Your task to perform on an android device: make emails show in primary in the gmail app Image 0: 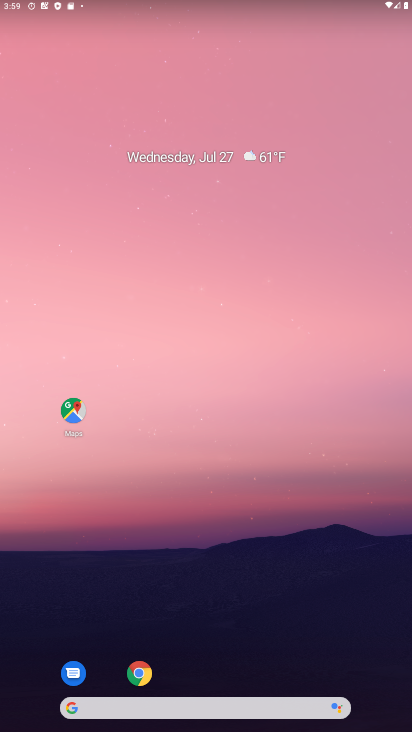
Step 0: drag from (39, 700) to (183, 119)
Your task to perform on an android device: make emails show in primary in the gmail app Image 1: 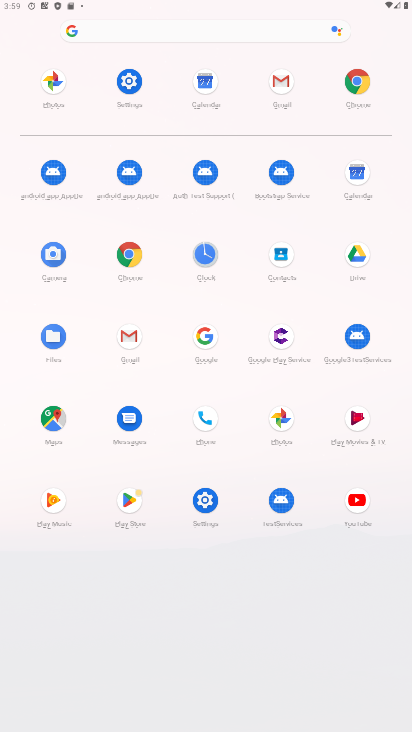
Step 1: click (125, 328)
Your task to perform on an android device: make emails show in primary in the gmail app Image 2: 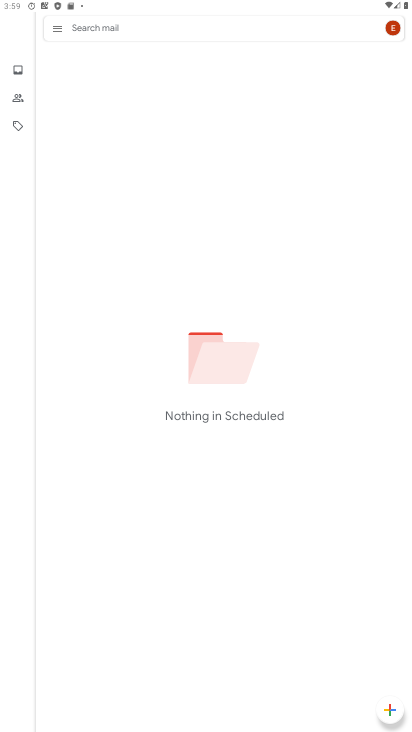
Step 2: click (60, 33)
Your task to perform on an android device: make emails show in primary in the gmail app Image 3: 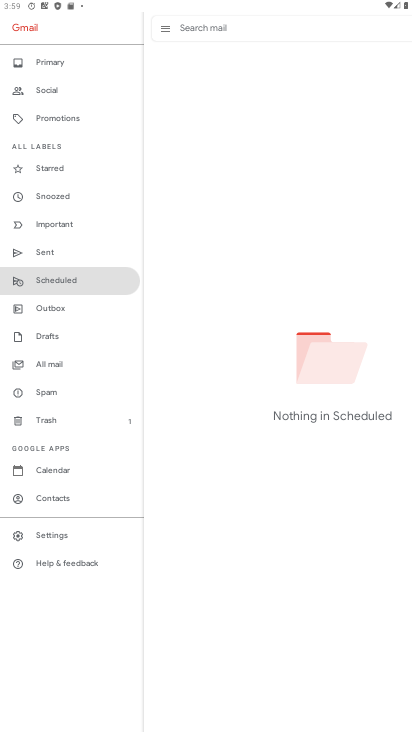
Step 3: click (51, 70)
Your task to perform on an android device: make emails show in primary in the gmail app Image 4: 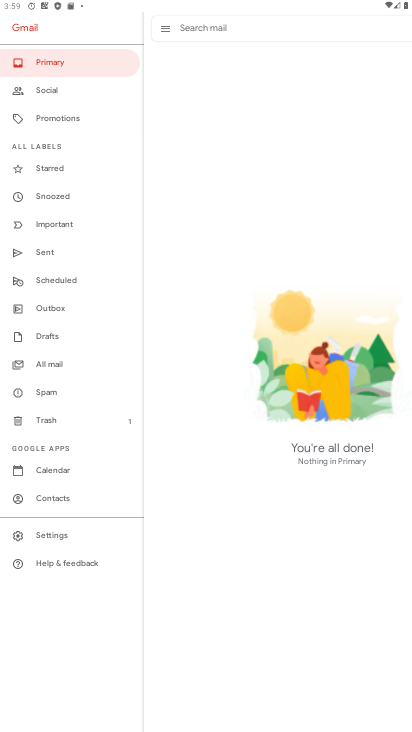
Step 4: task complete